Your task to perform on an android device: find photos in the google photos app Image 0: 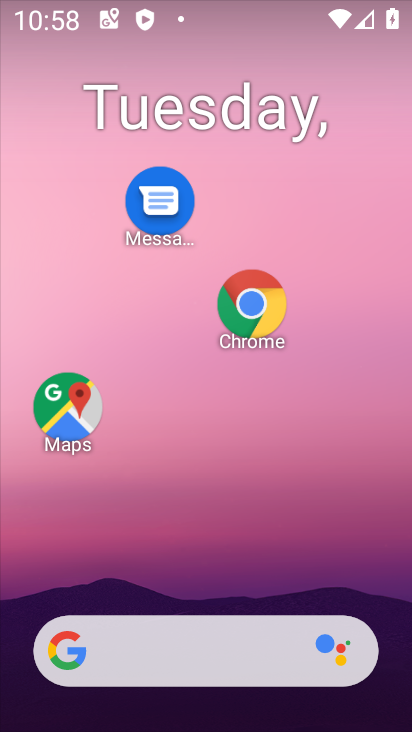
Step 0: drag from (228, 693) to (296, 247)
Your task to perform on an android device: find photos in the google photos app Image 1: 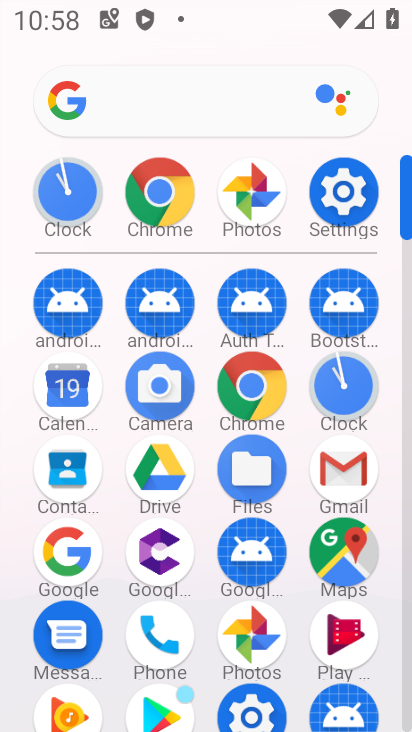
Step 1: click (241, 620)
Your task to perform on an android device: find photos in the google photos app Image 2: 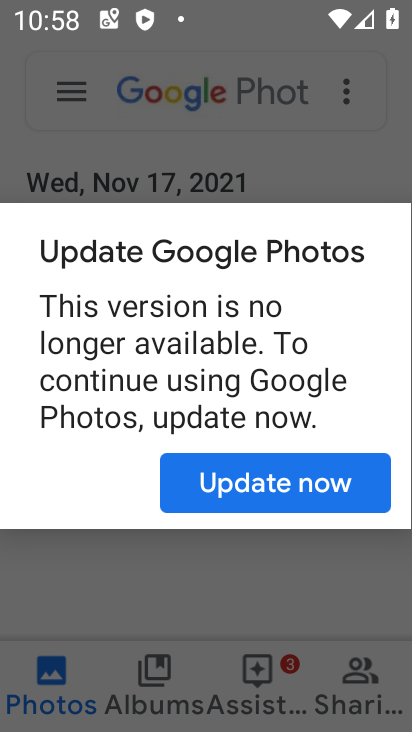
Step 2: click (282, 473)
Your task to perform on an android device: find photos in the google photos app Image 3: 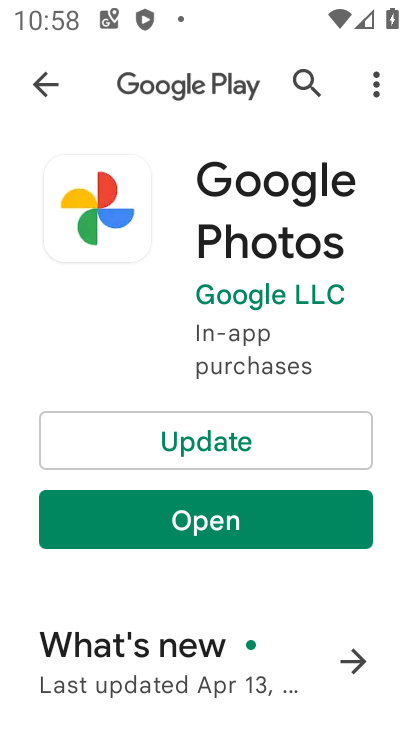
Step 3: press back button
Your task to perform on an android device: find photos in the google photos app Image 4: 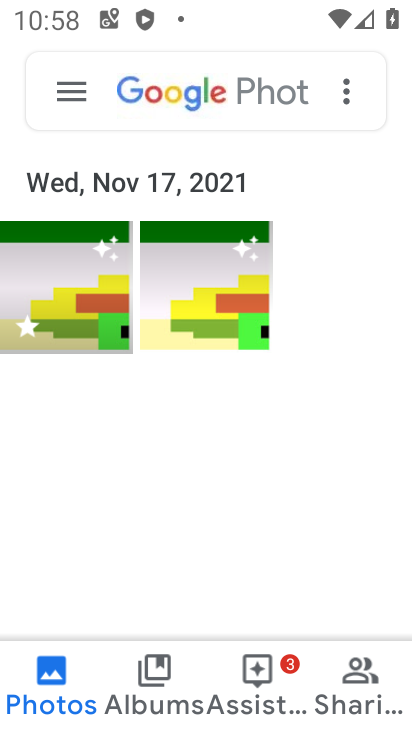
Step 4: click (68, 294)
Your task to perform on an android device: find photos in the google photos app Image 5: 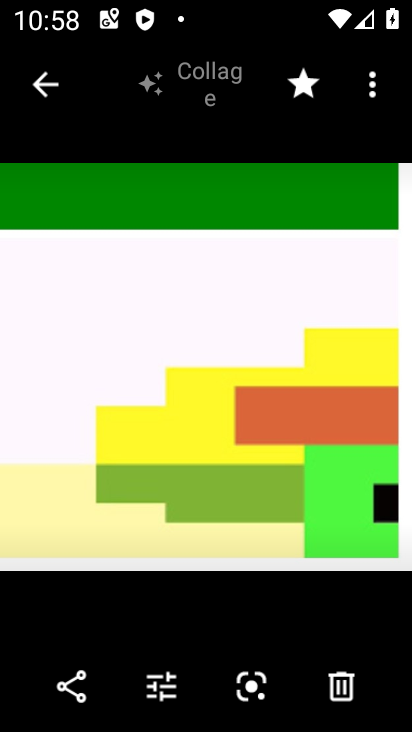
Step 5: task complete